Your task to perform on an android device: turn off javascript in the chrome app Image 0: 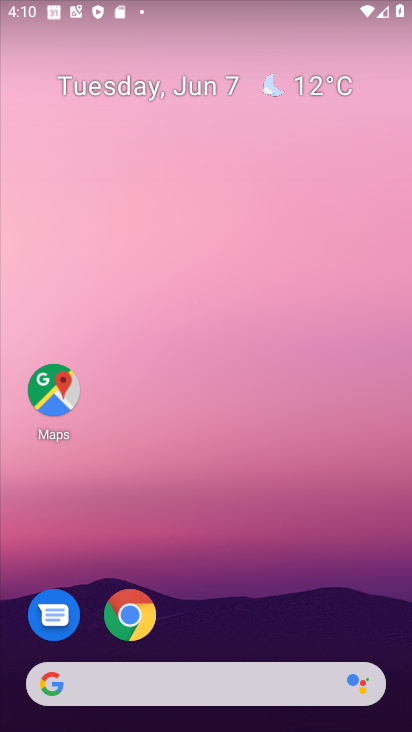
Step 0: drag from (219, 645) to (262, 165)
Your task to perform on an android device: turn off javascript in the chrome app Image 1: 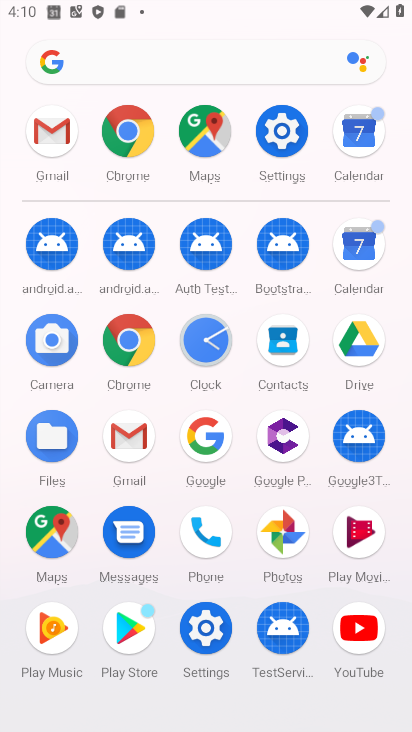
Step 1: click (128, 333)
Your task to perform on an android device: turn off javascript in the chrome app Image 2: 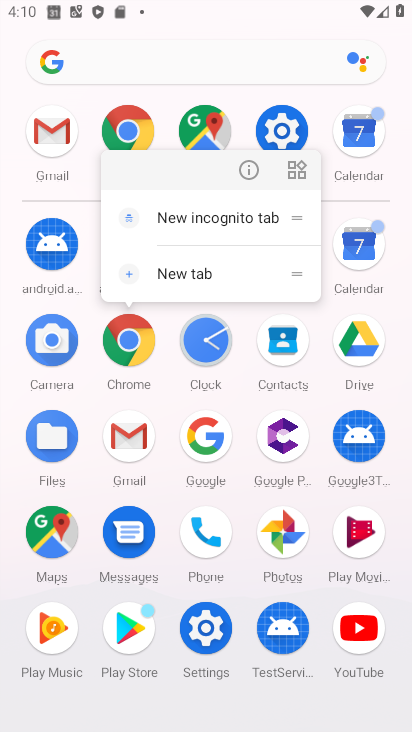
Step 2: click (139, 344)
Your task to perform on an android device: turn off javascript in the chrome app Image 3: 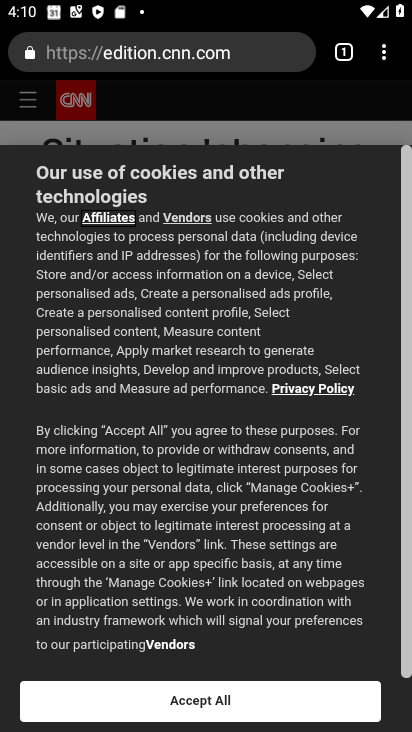
Step 3: click (385, 54)
Your task to perform on an android device: turn off javascript in the chrome app Image 4: 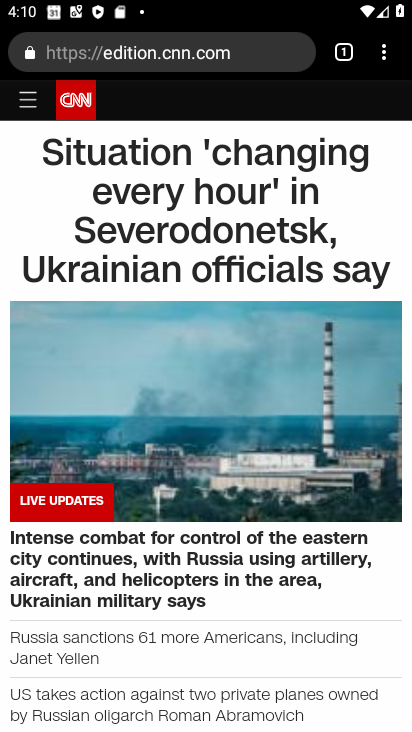
Step 4: click (387, 43)
Your task to perform on an android device: turn off javascript in the chrome app Image 5: 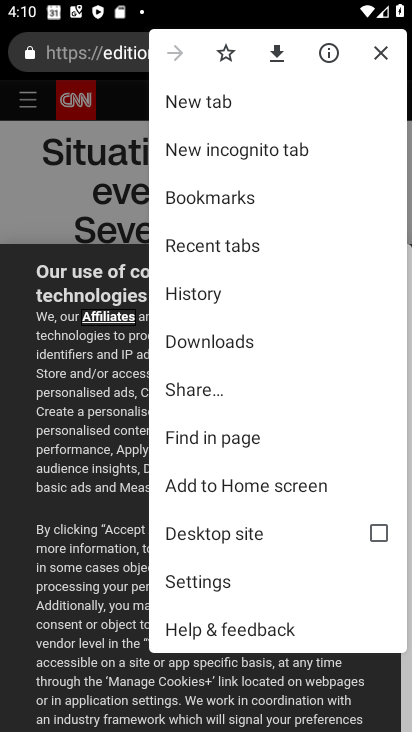
Step 5: click (189, 590)
Your task to perform on an android device: turn off javascript in the chrome app Image 6: 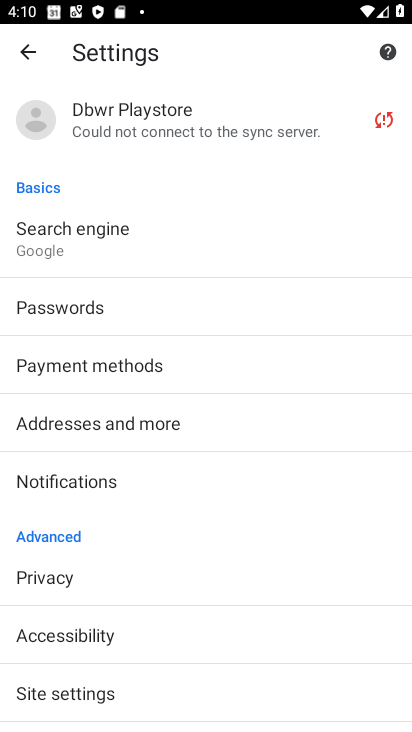
Step 6: drag from (191, 580) to (273, 243)
Your task to perform on an android device: turn off javascript in the chrome app Image 7: 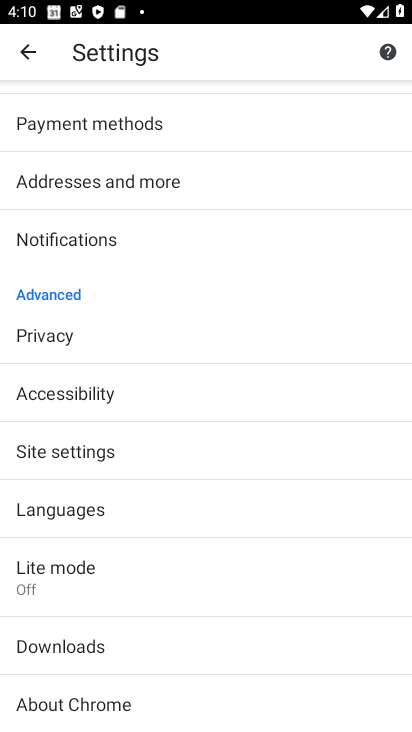
Step 7: click (71, 451)
Your task to perform on an android device: turn off javascript in the chrome app Image 8: 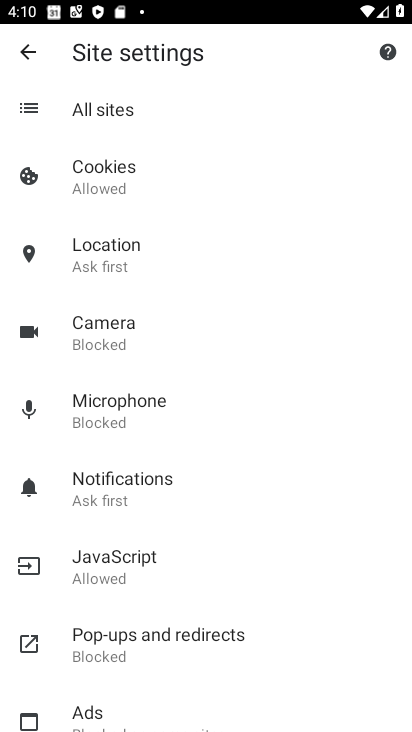
Step 8: click (117, 573)
Your task to perform on an android device: turn off javascript in the chrome app Image 9: 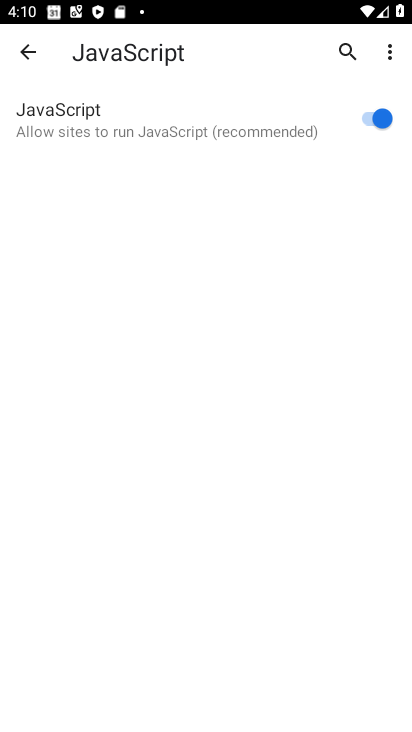
Step 9: click (363, 130)
Your task to perform on an android device: turn off javascript in the chrome app Image 10: 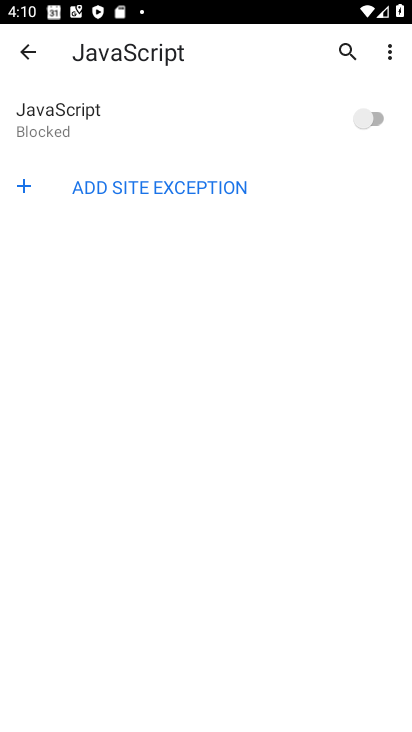
Step 10: task complete